Your task to perform on an android device: Is it going to rain today? Image 0: 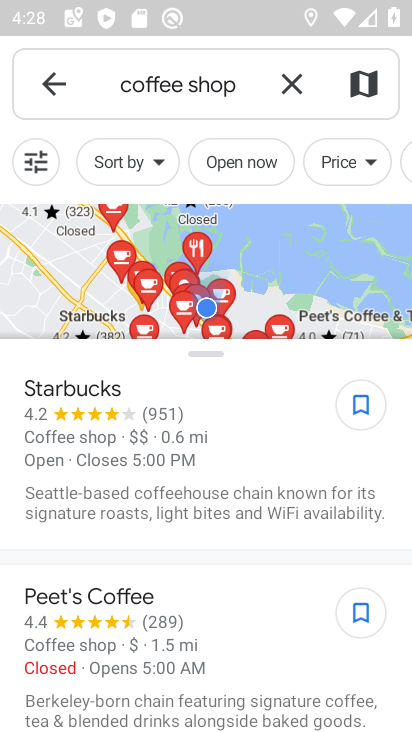
Step 0: press home button
Your task to perform on an android device: Is it going to rain today? Image 1: 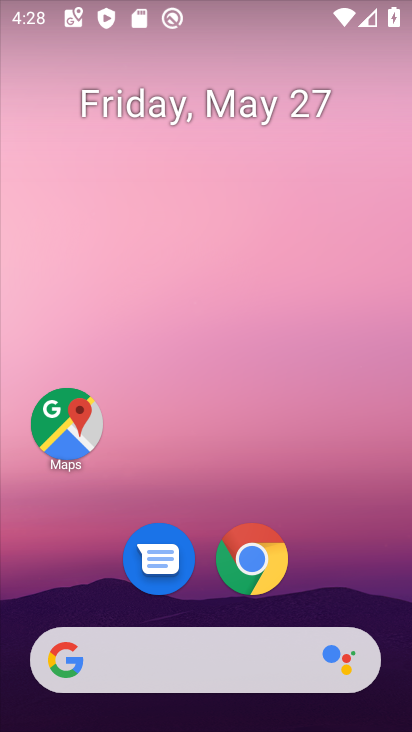
Step 1: drag from (3, 204) to (406, 248)
Your task to perform on an android device: Is it going to rain today? Image 2: 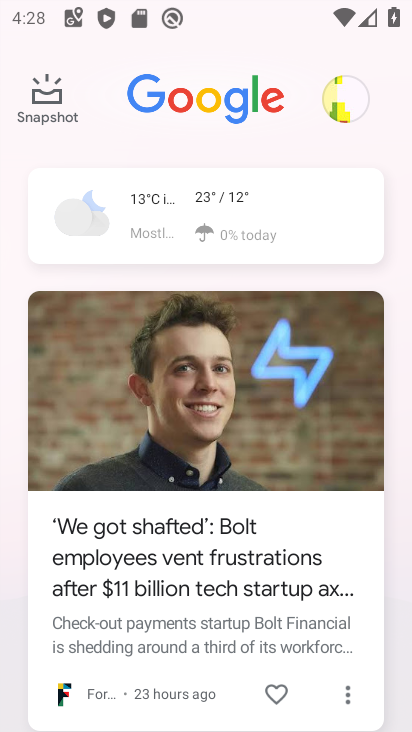
Step 2: click (241, 215)
Your task to perform on an android device: Is it going to rain today? Image 3: 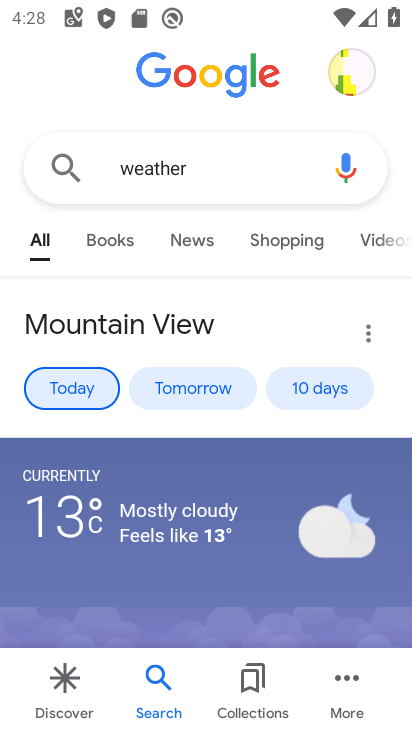
Step 3: click (306, 387)
Your task to perform on an android device: Is it going to rain today? Image 4: 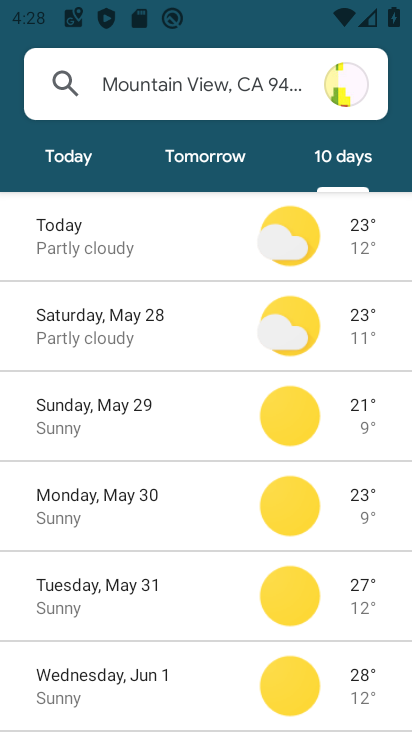
Step 4: task complete